Your task to perform on an android device: Add "usb-b" to the cart on target.com, then select checkout. Image 0: 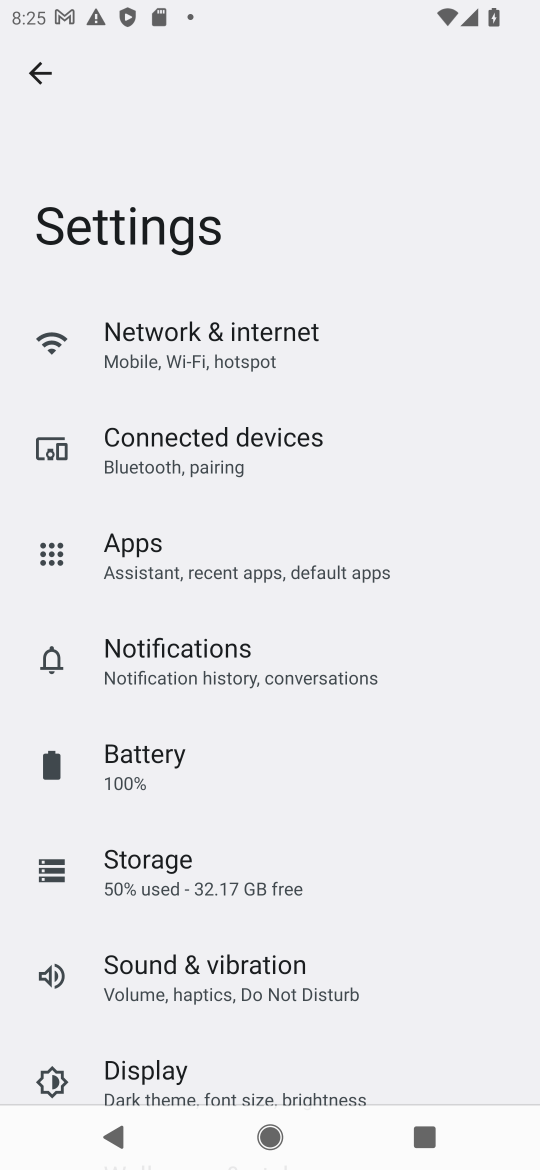
Step 0: press home button
Your task to perform on an android device: Add "usb-b" to the cart on target.com, then select checkout. Image 1: 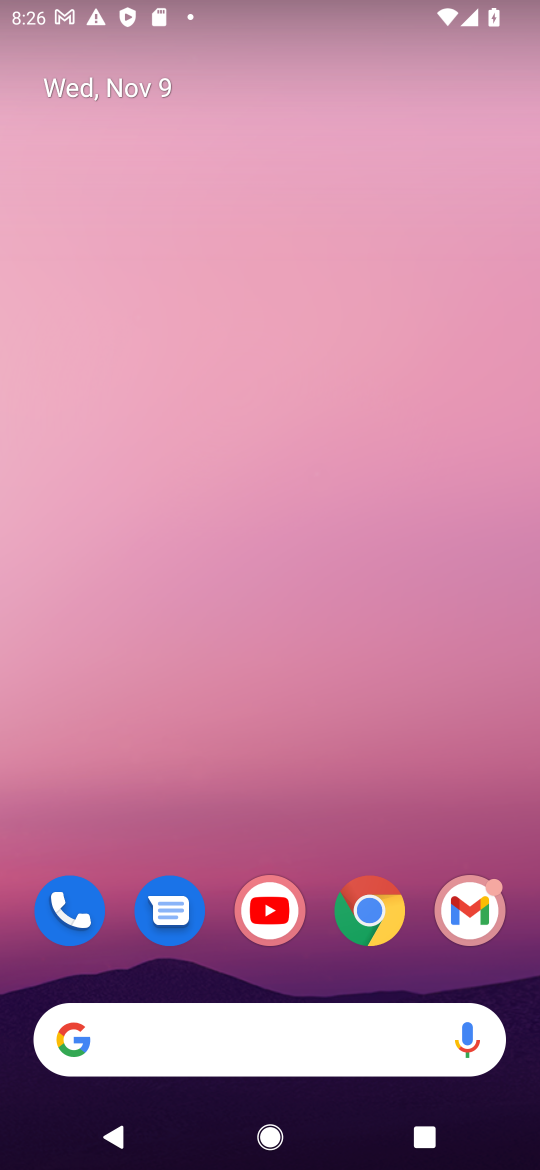
Step 1: click (363, 908)
Your task to perform on an android device: Add "usb-b" to the cart on target.com, then select checkout. Image 2: 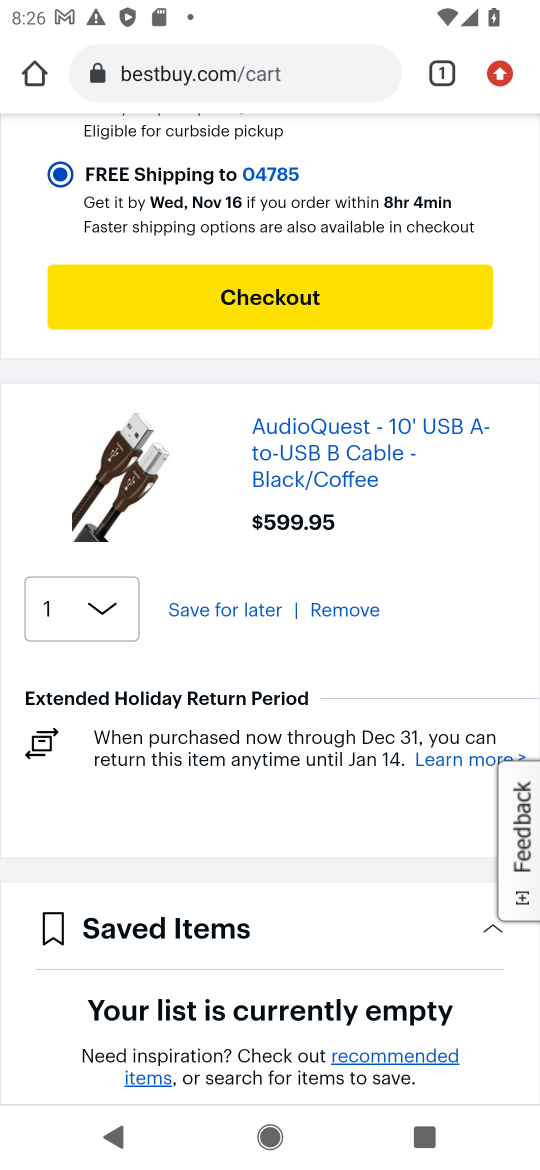
Step 2: click (212, 65)
Your task to perform on an android device: Add "usb-b" to the cart on target.com, then select checkout. Image 3: 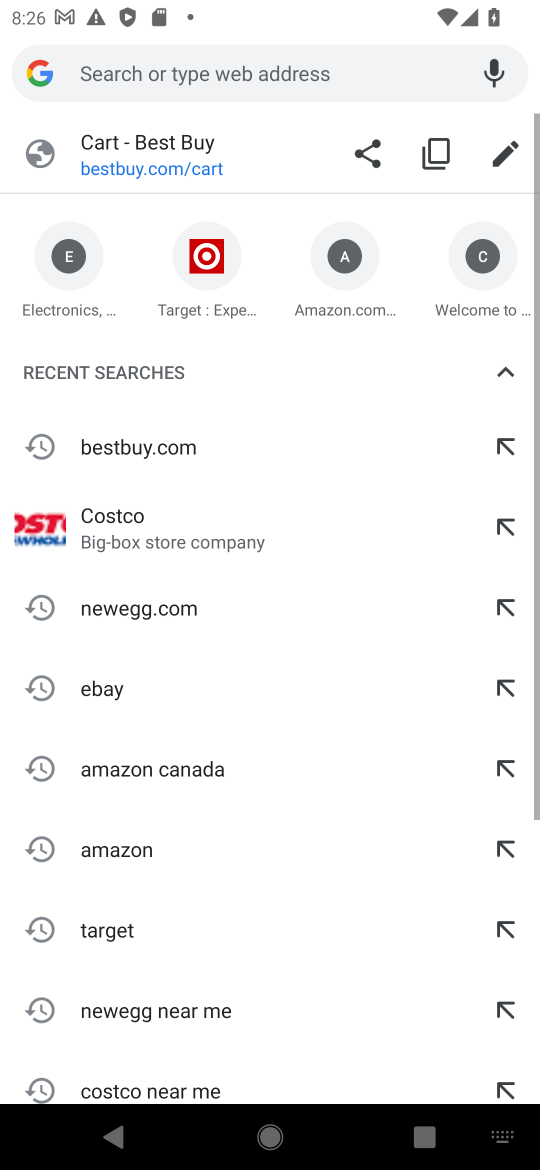
Step 3: click (186, 247)
Your task to perform on an android device: Add "usb-b" to the cart on target.com, then select checkout. Image 4: 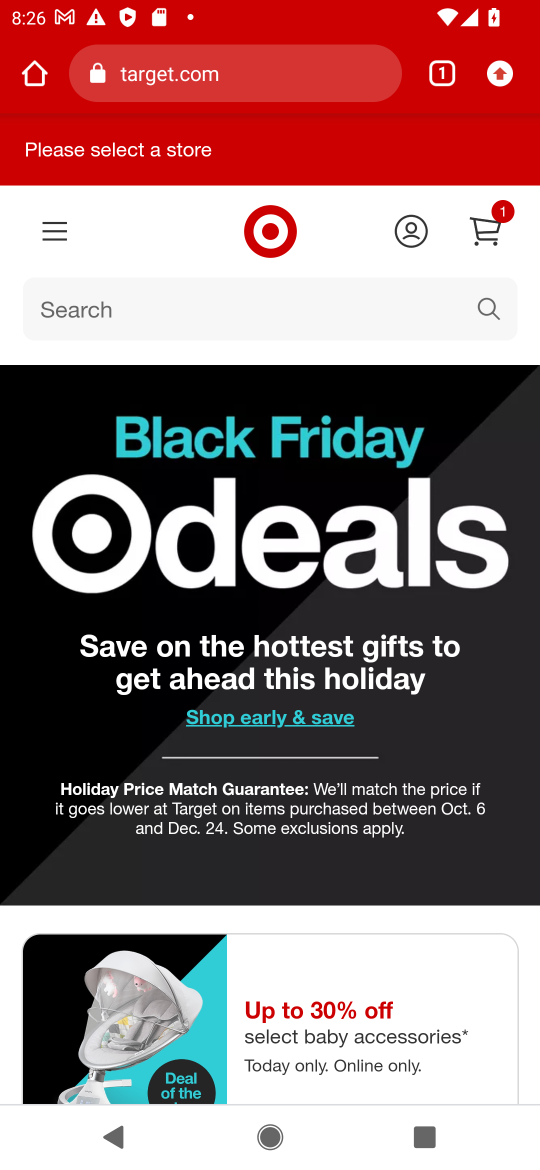
Step 4: click (480, 303)
Your task to perform on an android device: Add "usb-b" to the cart on target.com, then select checkout. Image 5: 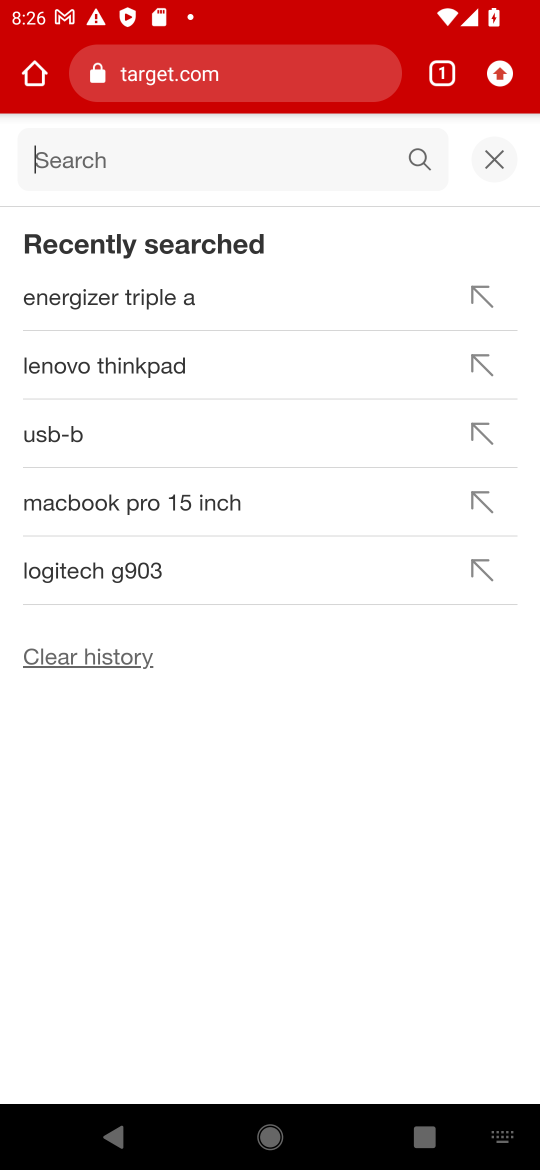
Step 5: click (60, 430)
Your task to perform on an android device: Add "usb-b" to the cart on target.com, then select checkout. Image 6: 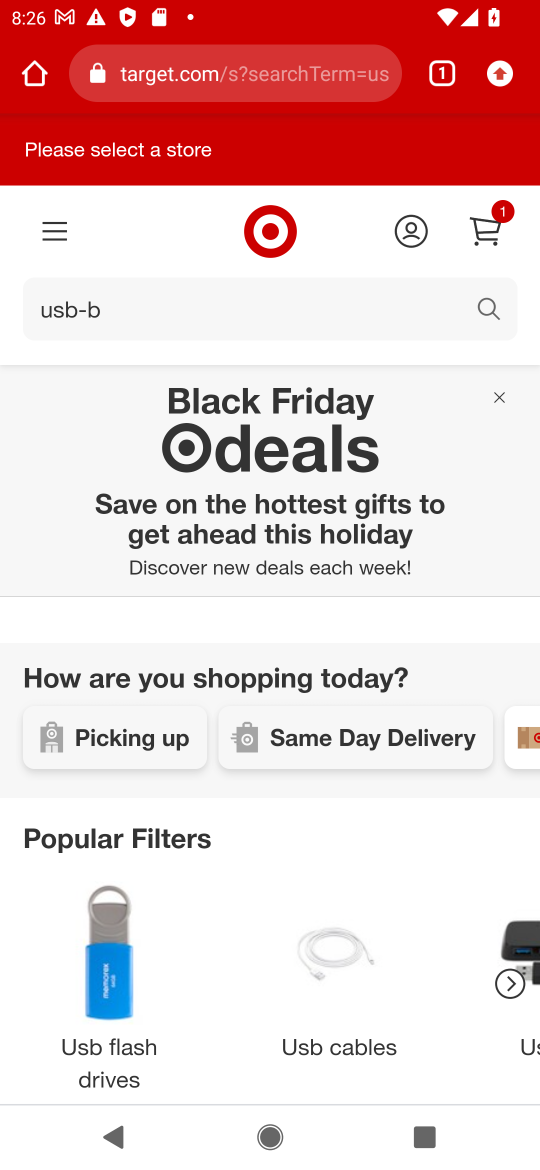
Step 6: task complete